Your task to perform on an android device: turn on javascript in the chrome app Image 0: 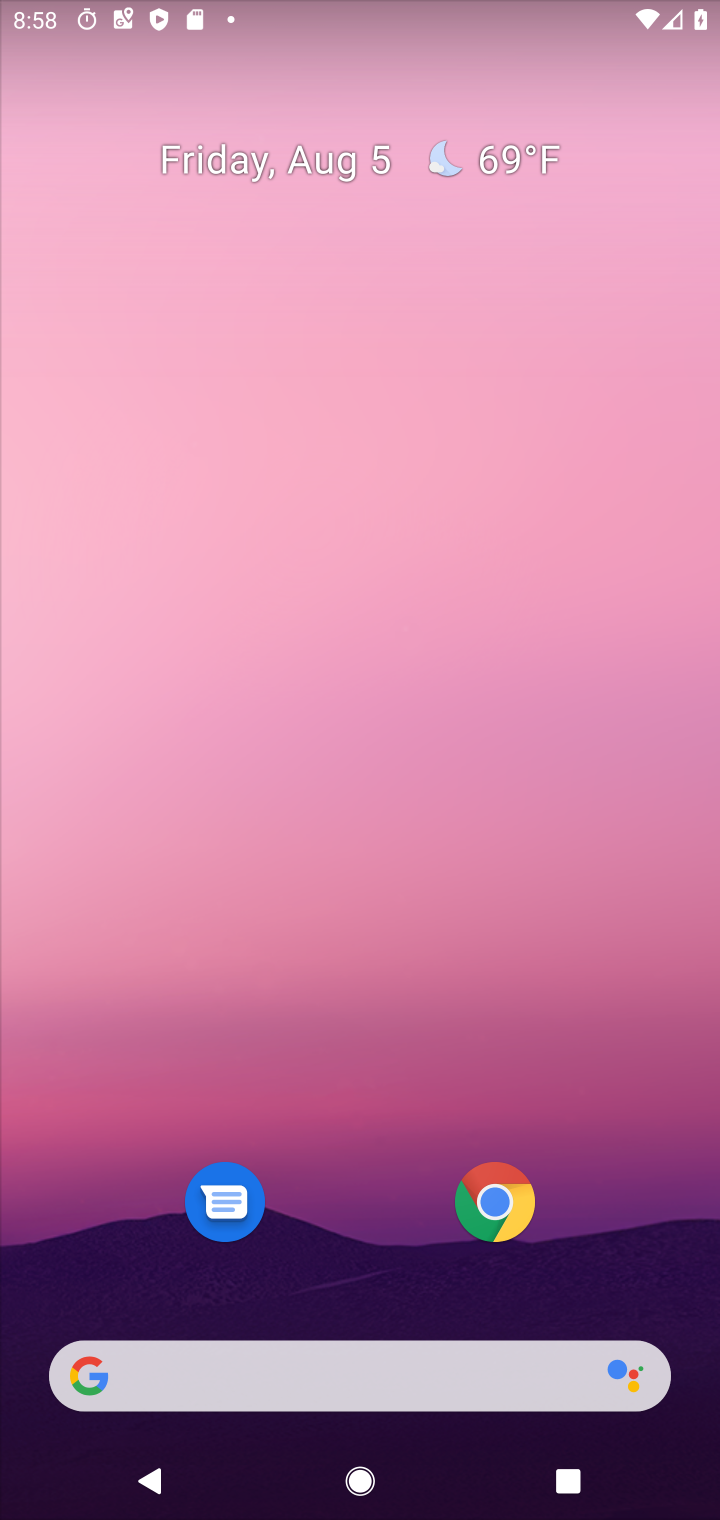
Step 0: click (499, 1188)
Your task to perform on an android device: turn on javascript in the chrome app Image 1: 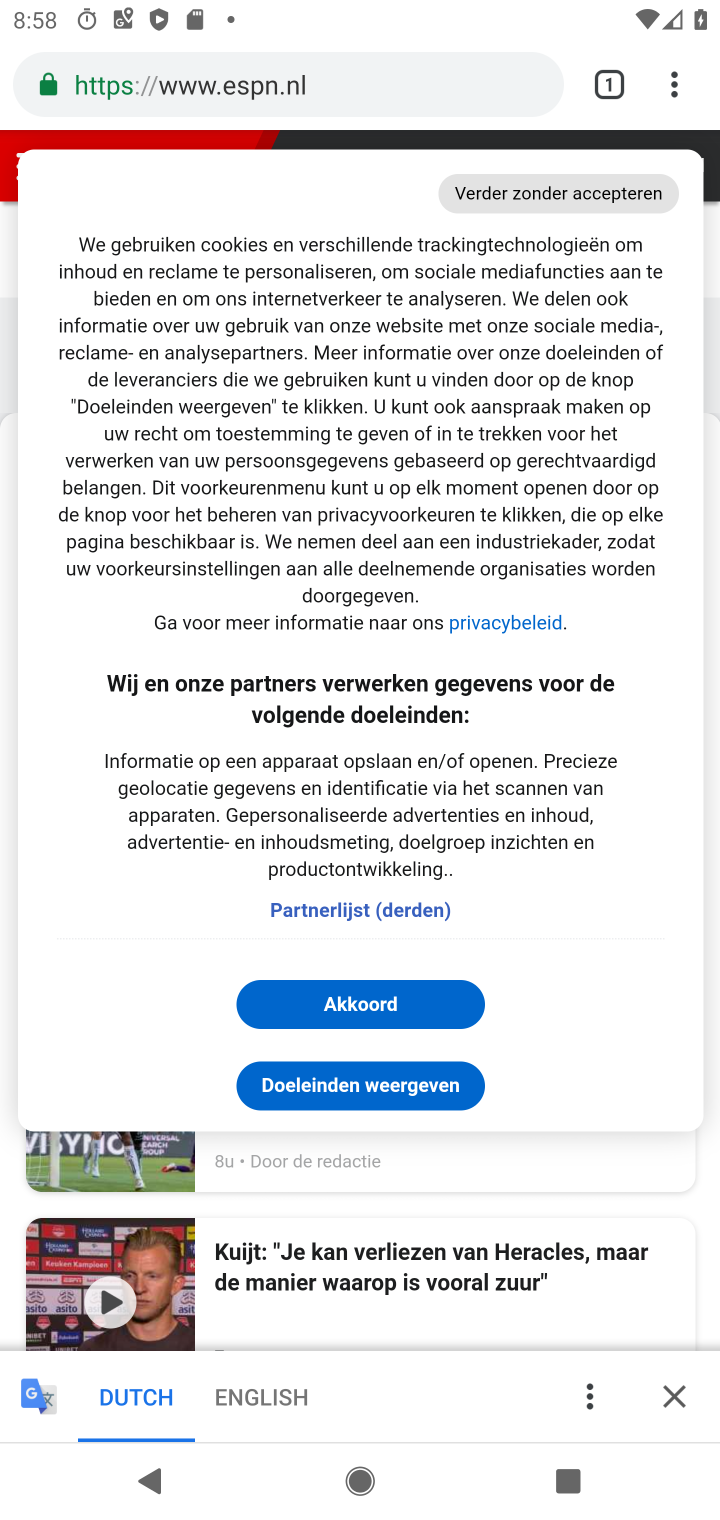
Step 1: click (683, 111)
Your task to perform on an android device: turn on javascript in the chrome app Image 2: 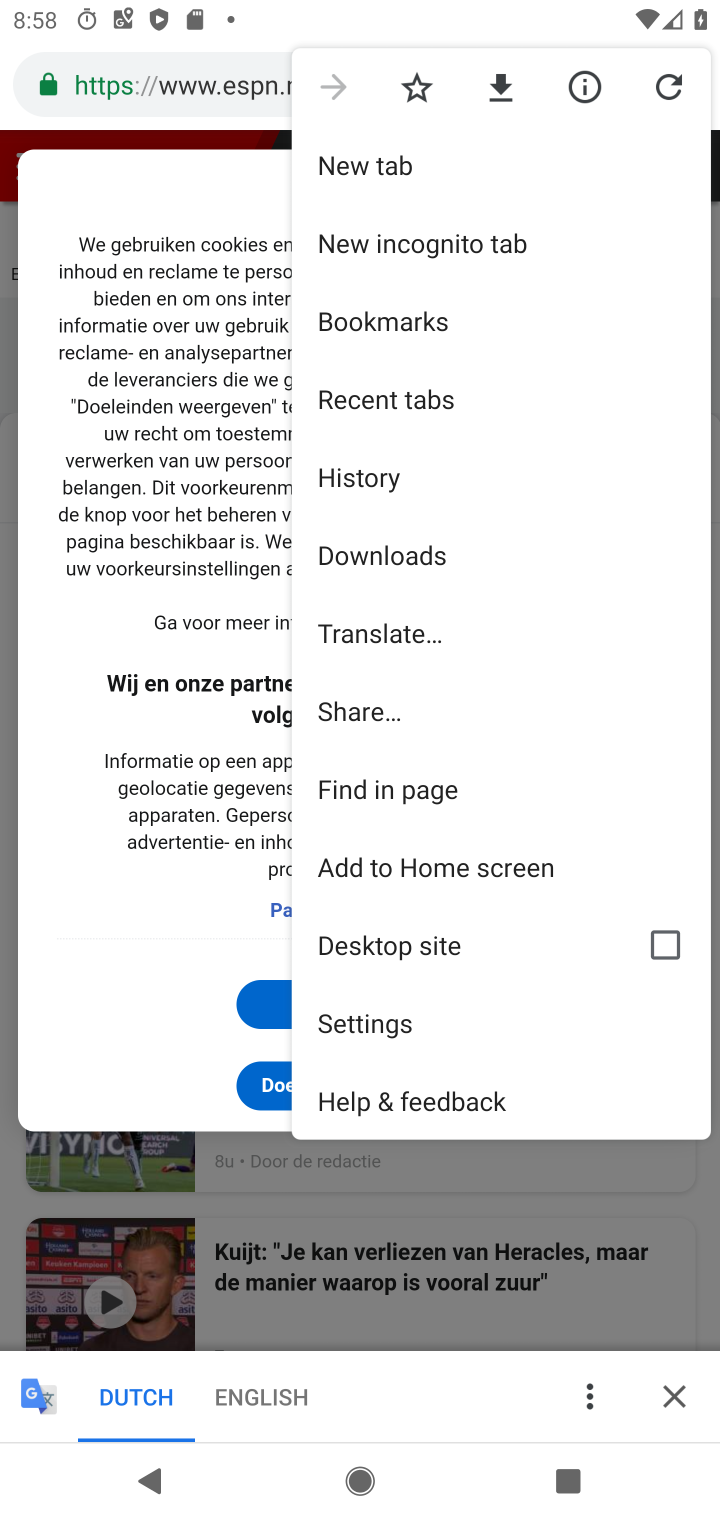
Step 2: click (422, 1034)
Your task to perform on an android device: turn on javascript in the chrome app Image 3: 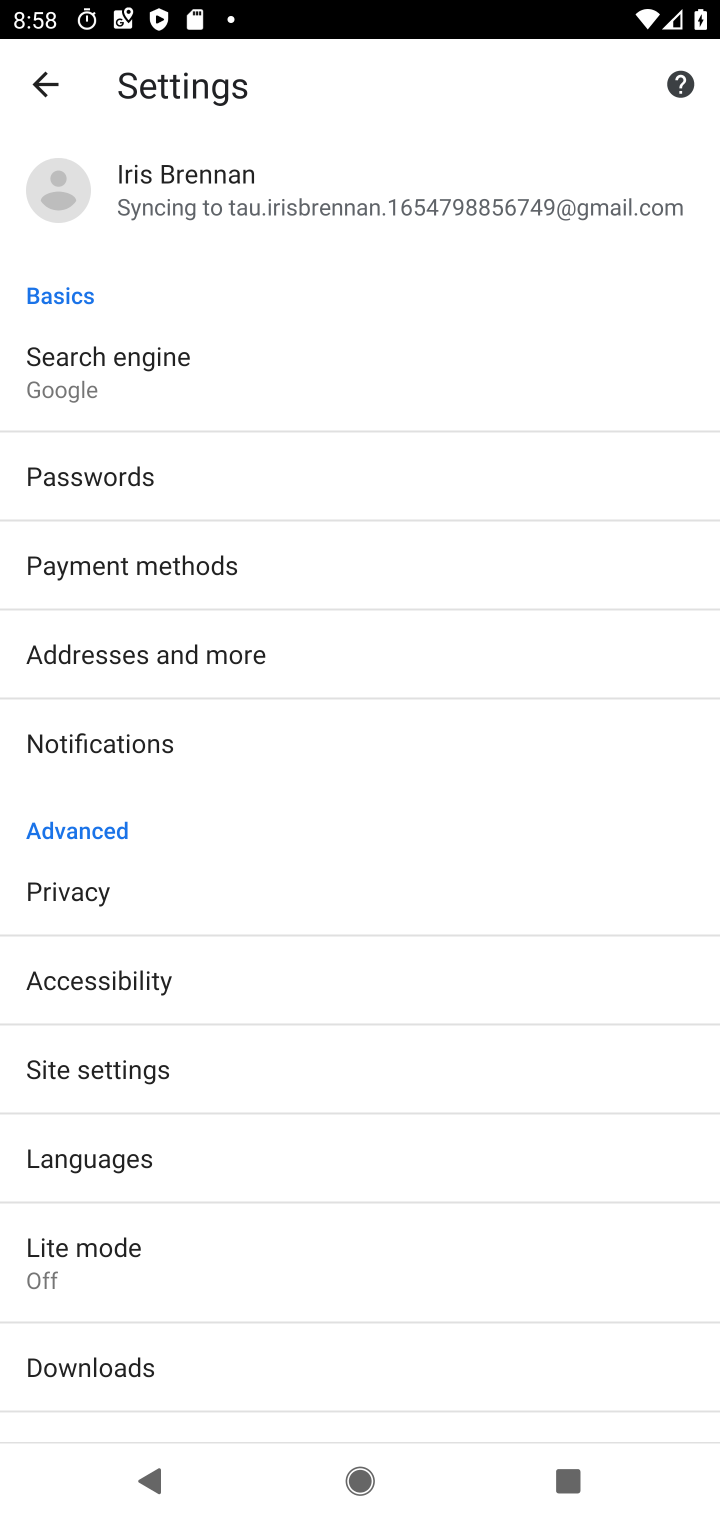
Step 3: click (181, 1072)
Your task to perform on an android device: turn on javascript in the chrome app Image 4: 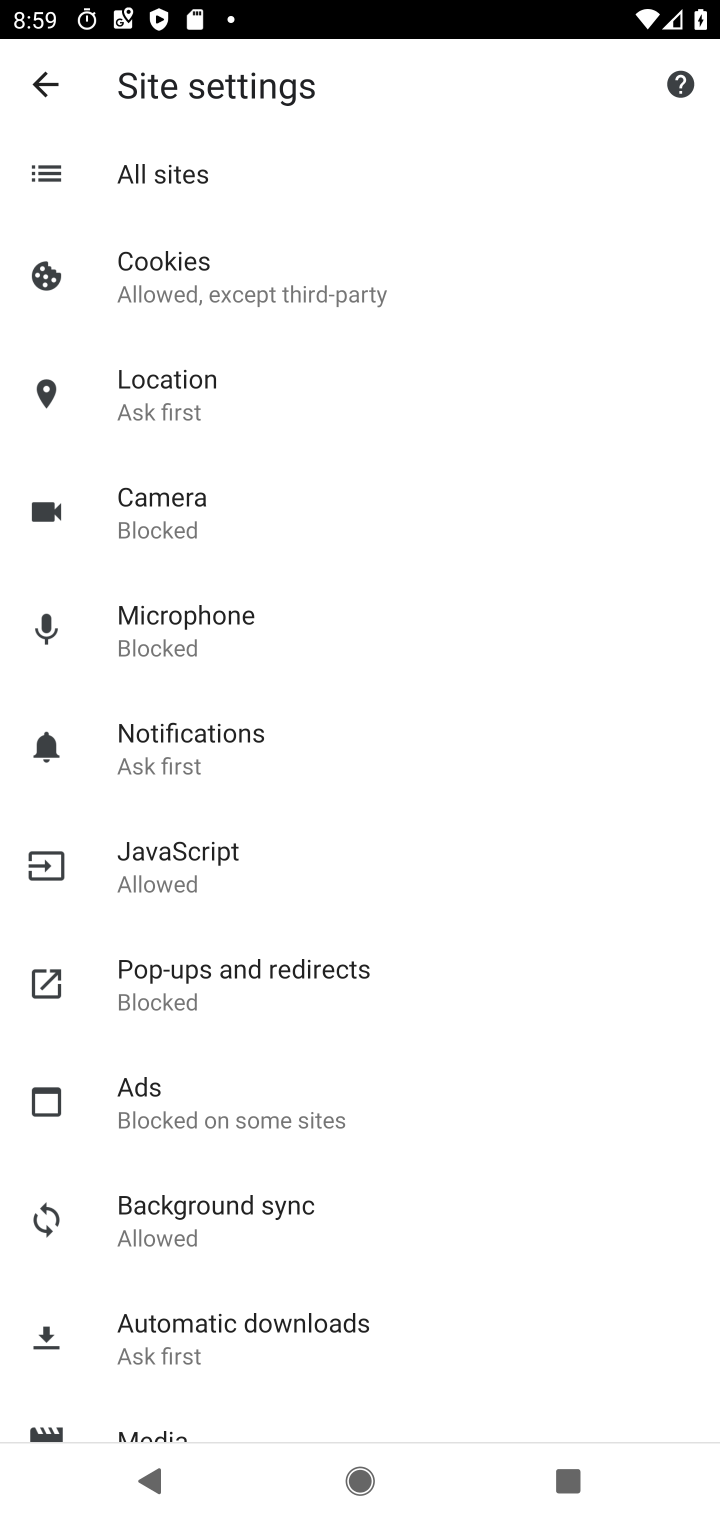
Step 4: click (227, 842)
Your task to perform on an android device: turn on javascript in the chrome app Image 5: 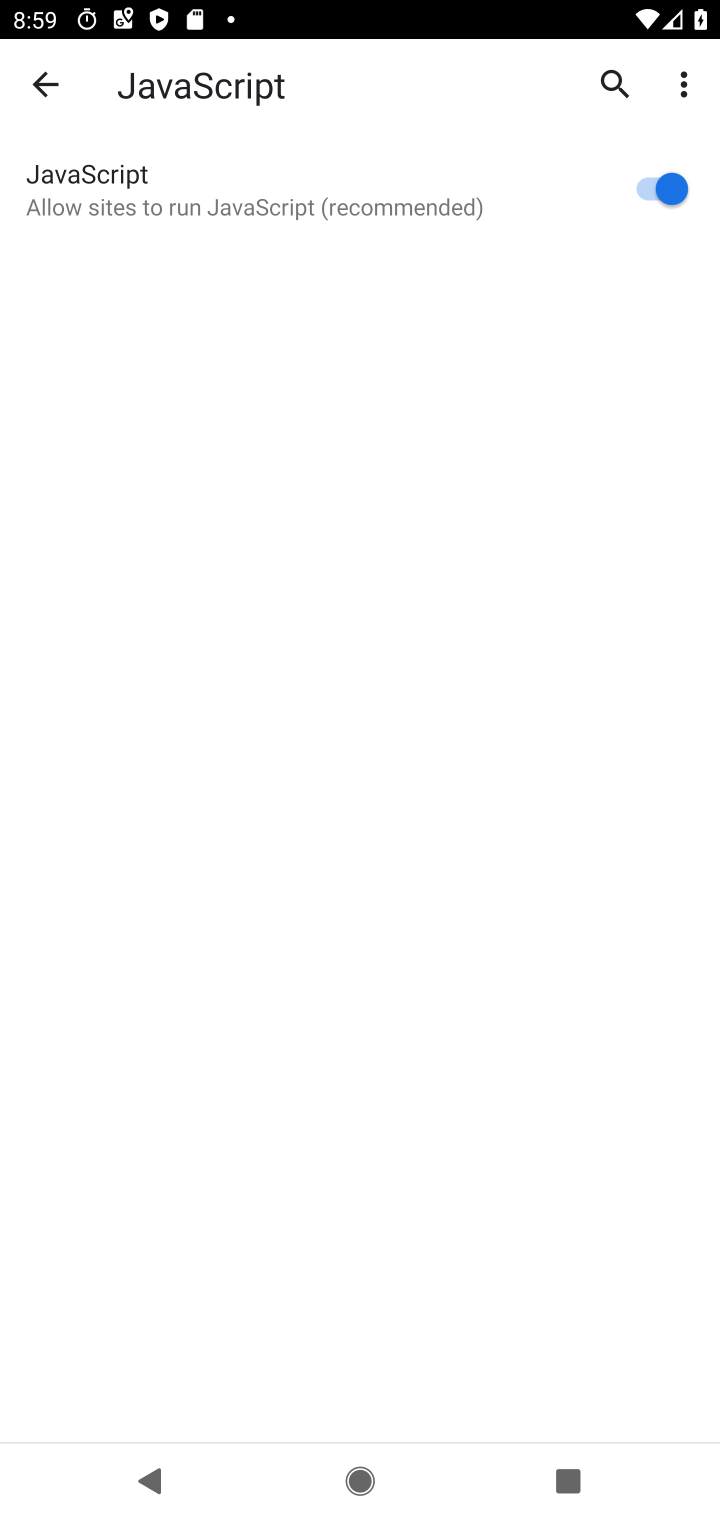
Step 5: task complete